Your task to perform on an android device: set the timer Image 0: 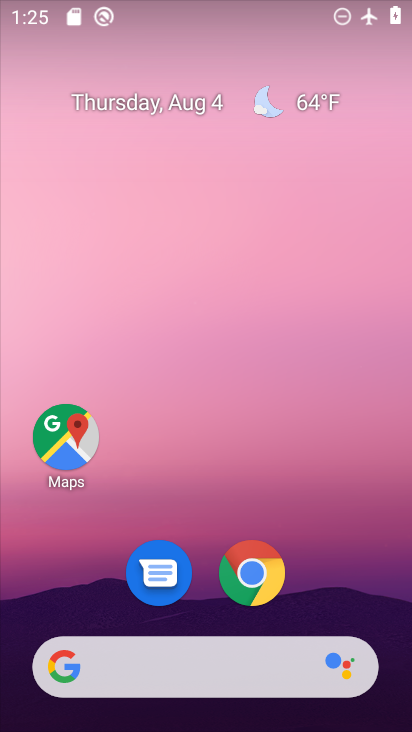
Step 0: drag from (338, 592) to (357, 115)
Your task to perform on an android device: set the timer Image 1: 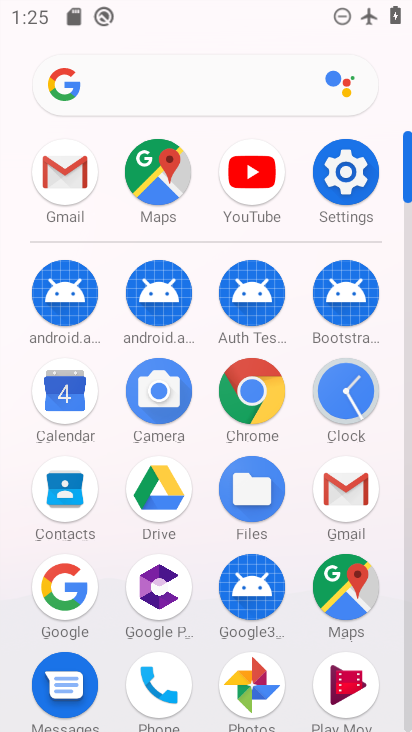
Step 1: click (350, 396)
Your task to perform on an android device: set the timer Image 2: 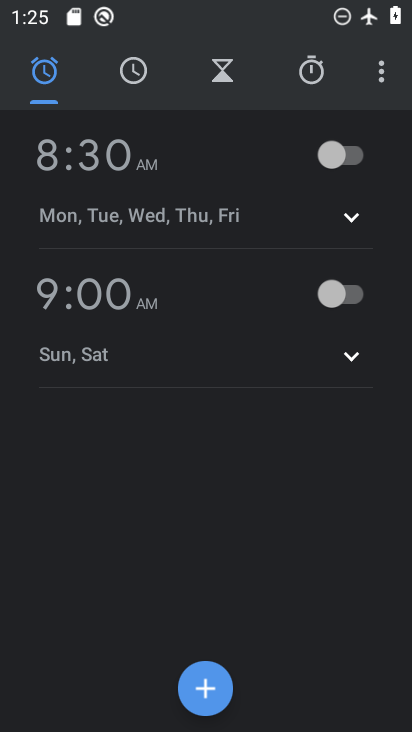
Step 2: click (243, 70)
Your task to perform on an android device: set the timer Image 3: 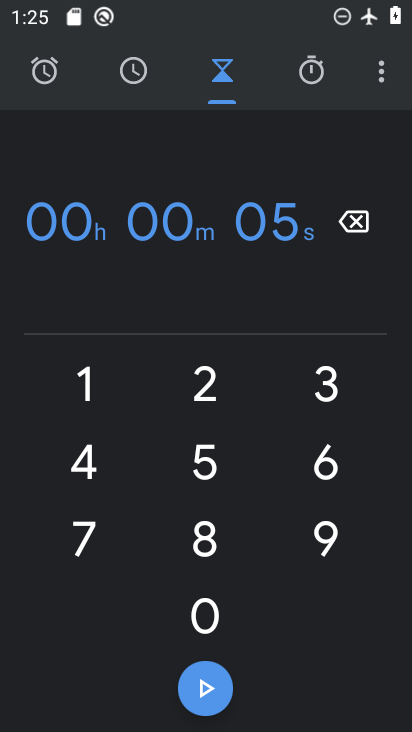
Step 3: task complete